Your task to perform on an android device: Do I have any events tomorrow? Image 0: 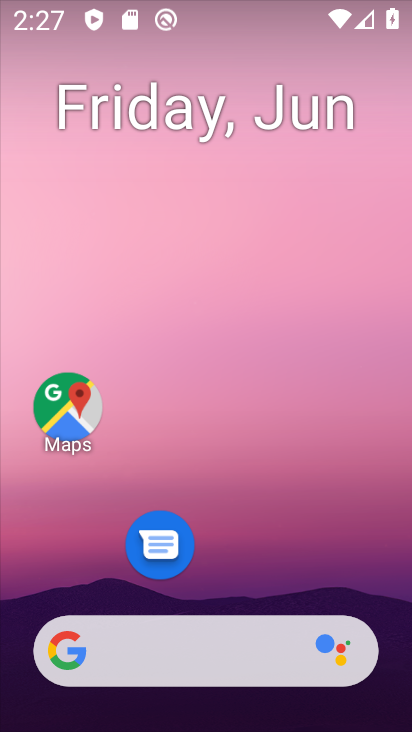
Step 0: drag from (262, 597) to (332, 69)
Your task to perform on an android device: Do I have any events tomorrow? Image 1: 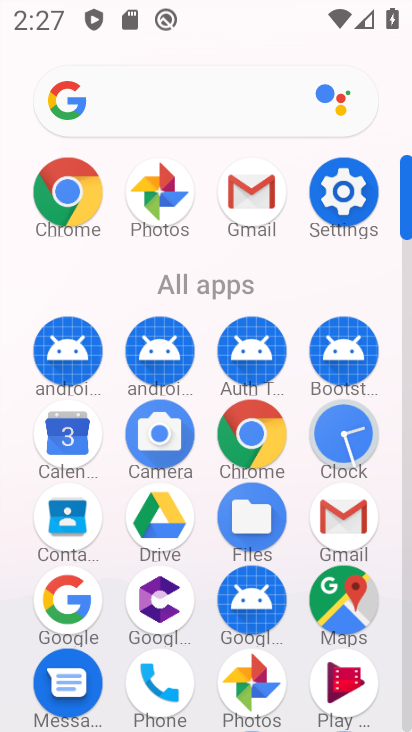
Step 1: click (72, 456)
Your task to perform on an android device: Do I have any events tomorrow? Image 2: 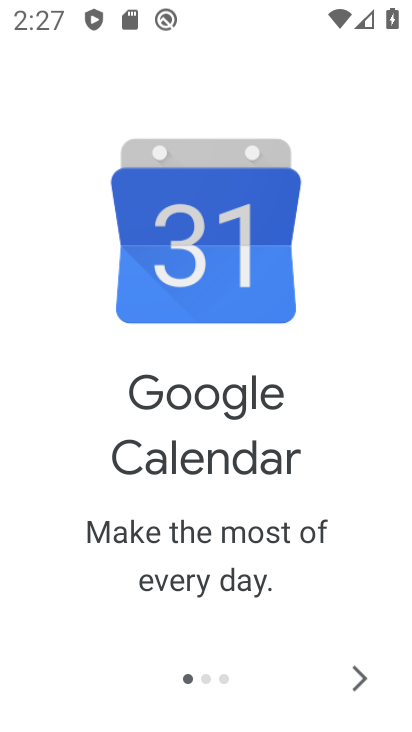
Step 2: click (357, 671)
Your task to perform on an android device: Do I have any events tomorrow? Image 3: 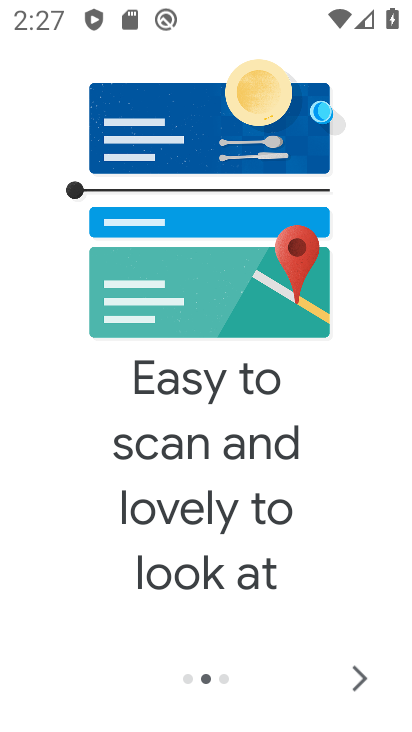
Step 3: click (357, 671)
Your task to perform on an android device: Do I have any events tomorrow? Image 4: 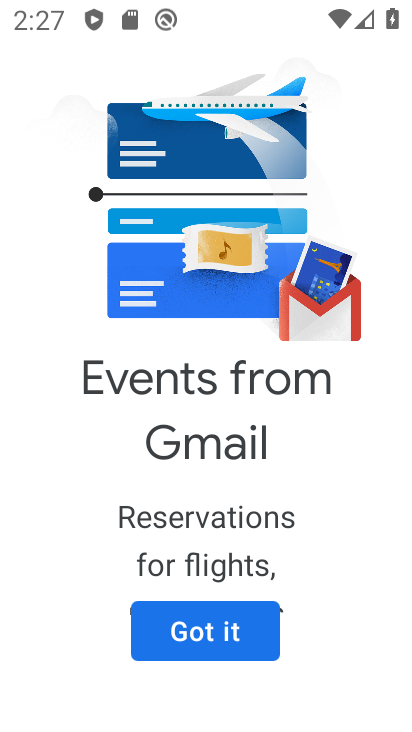
Step 4: click (169, 619)
Your task to perform on an android device: Do I have any events tomorrow? Image 5: 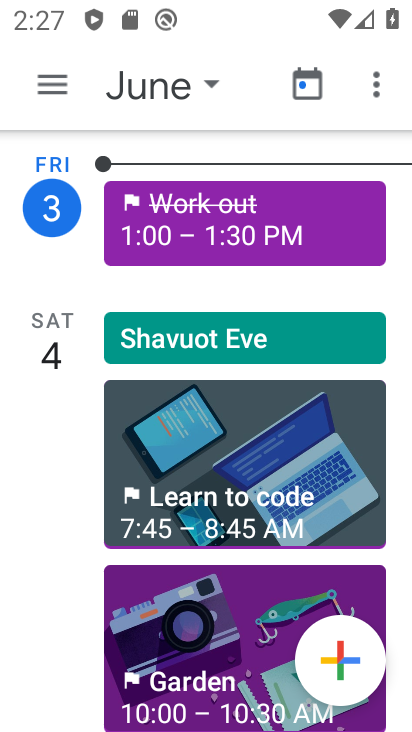
Step 5: click (44, 88)
Your task to perform on an android device: Do I have any events tomorrow? Image 6: 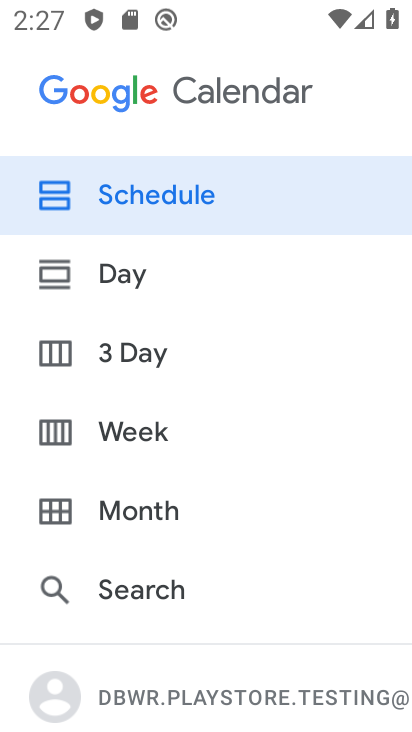
Step 6: drag from (149, 528) to (210, 243)
Your task to perform on an android device: Do I have any events tomorrow? Image 7: 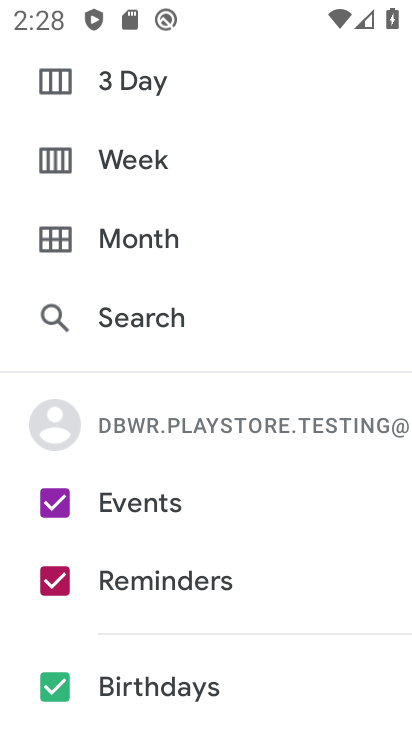
Step 7: click (114, 585)
Your task to perform on an android device: Do I have any events tomorrow? Image 8: 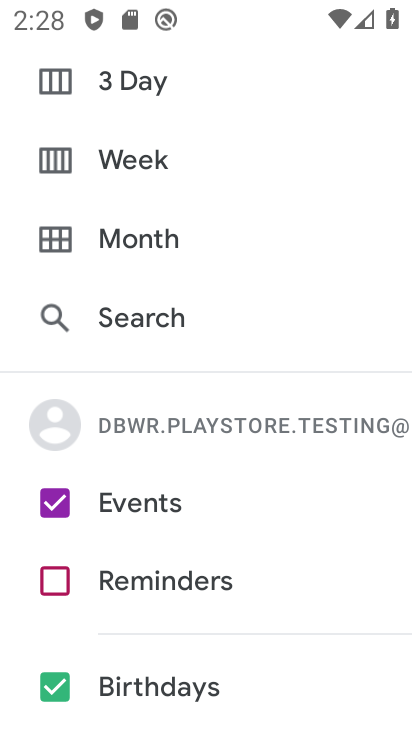
Step 8: drag from (151, 620) to (263, 275)
Your task to perform on an android device: Do I have any events tomorrow? Image 9: 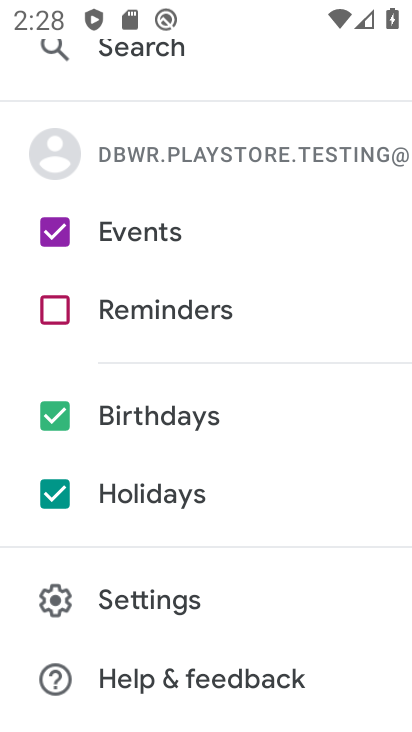
Step 9: click (148, 417)
Your task to perform on an android device: Do I have any events tomorrow? Image 10: 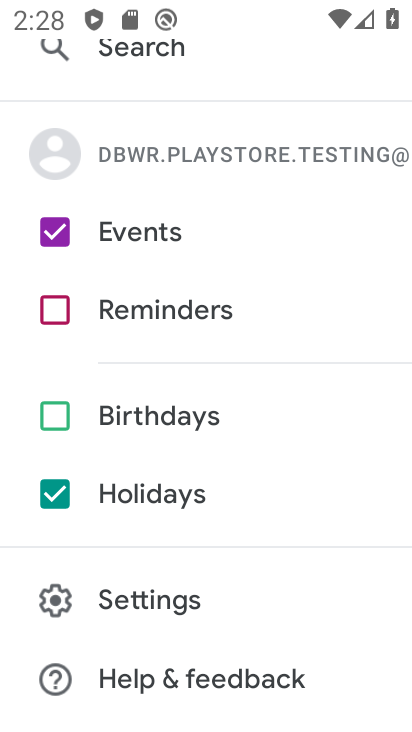
Step 10: click (127, 491)
Your task to perform on an android device: Do I have any events tomorrow? Image 11: 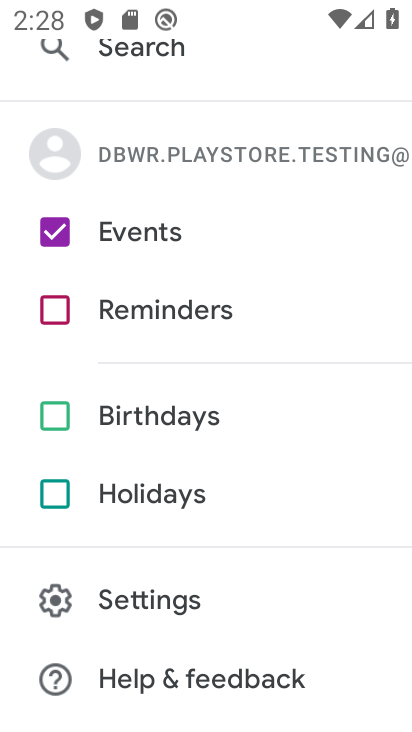
Step 11: drag from (316, 226) to (293, 544)
Your task to perform on an android device: Do I have any events tomorrow? Image 12: 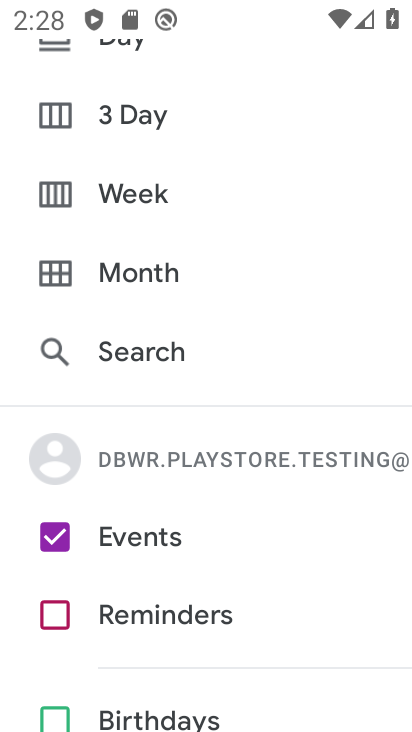
Step 12: click (141, 126)
Your task to perform on an android device: Do I have any events tomorrow? Image 13: 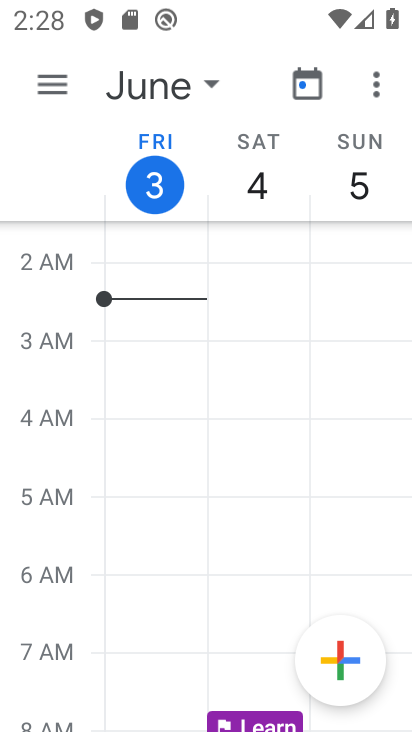
Step 13: task complete